Your task to perform on an android device: Open my contact list Image 0: 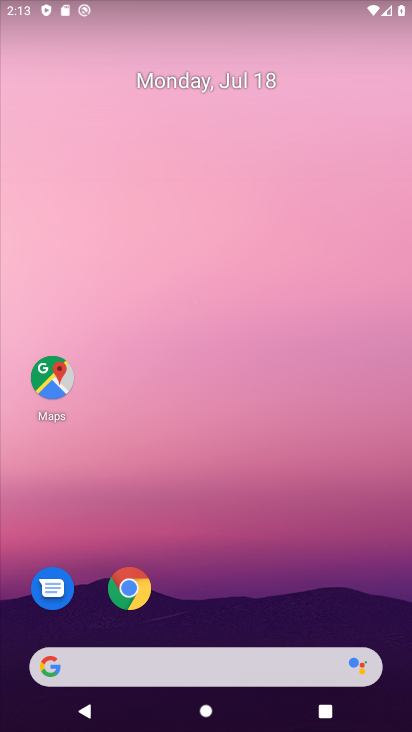
Step 0: drag from (257, 630) to (273, 0)
Your task to perform on an android device: Open my contact list Image 1: 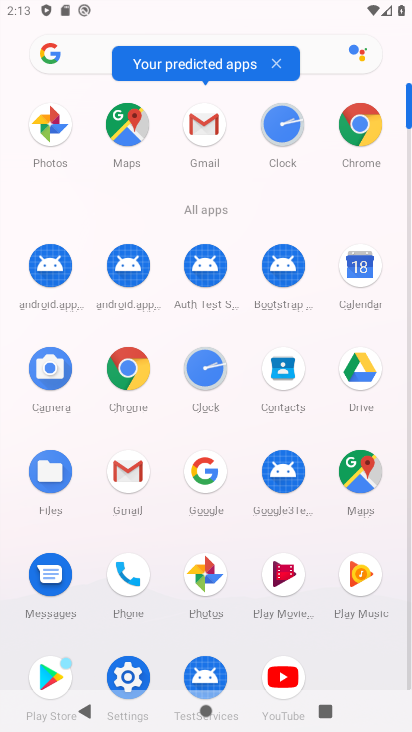
Step 1: click (285, 366)
Your task to perform on an android device: Open my contact list Image 2: 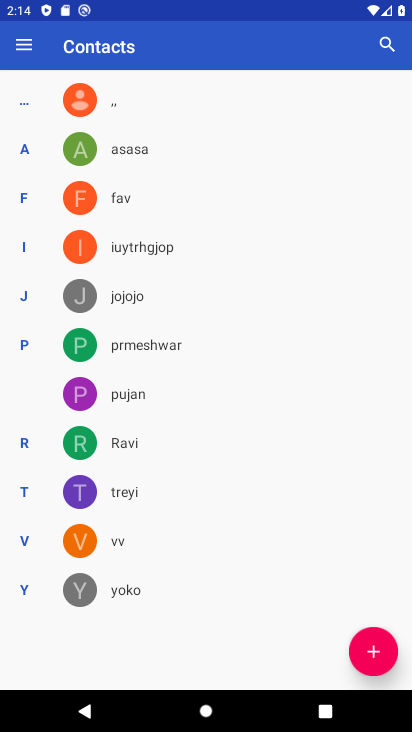
Step 2: task complete